Your task to perform on an android device: When is my next meeting? Image 0: 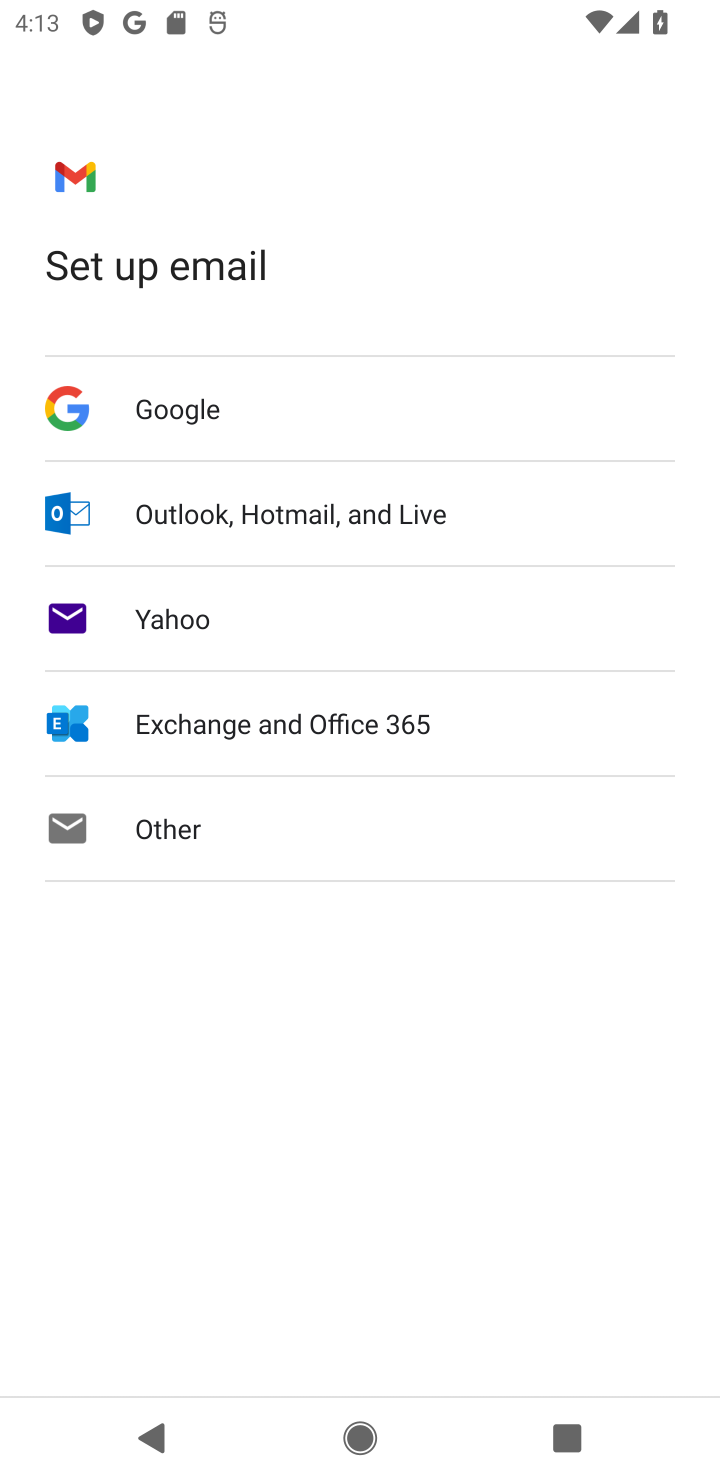
Step 0: press home button
Your task to perform on an android device: When is my next meeting? Image 1: 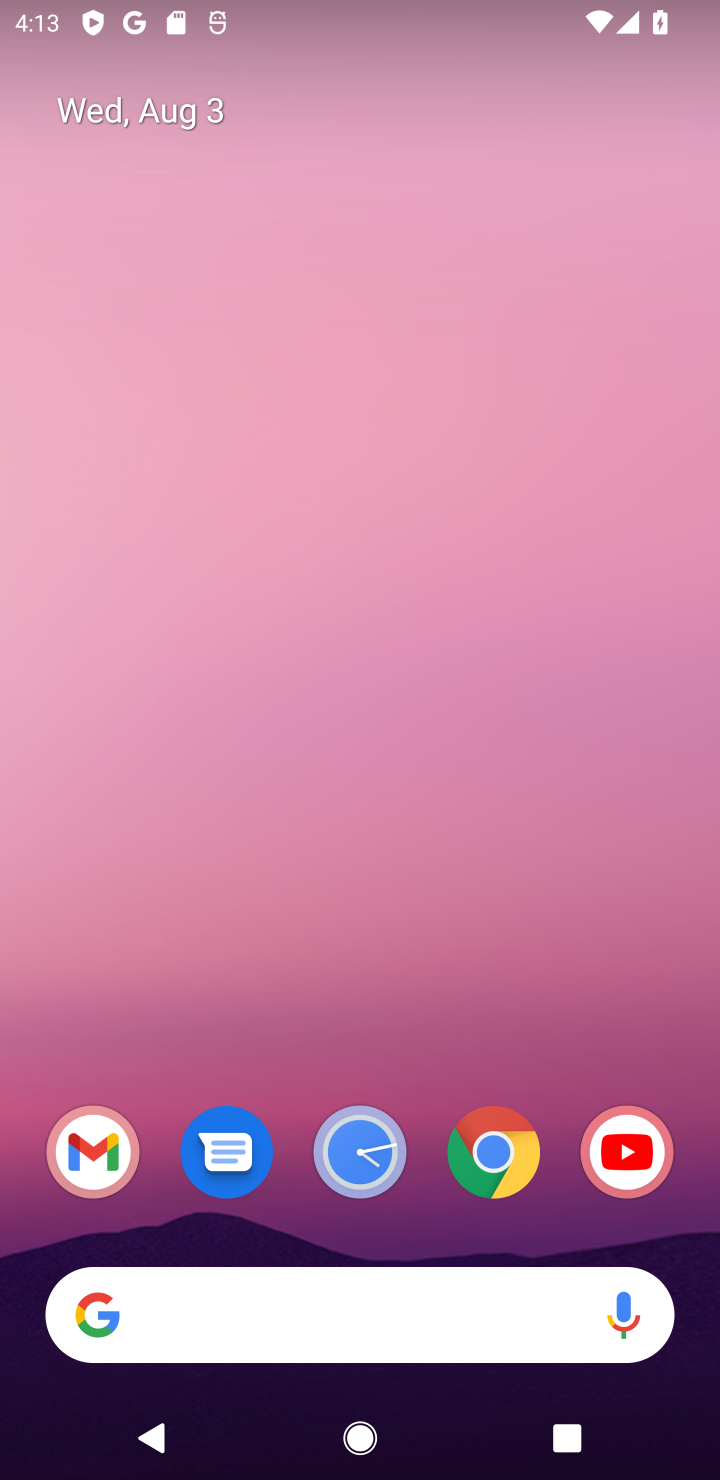
Step 1: drag from (336, 1309) to (291, 541)
Your task to perform on an android device: When is my next meeting? Image 2: 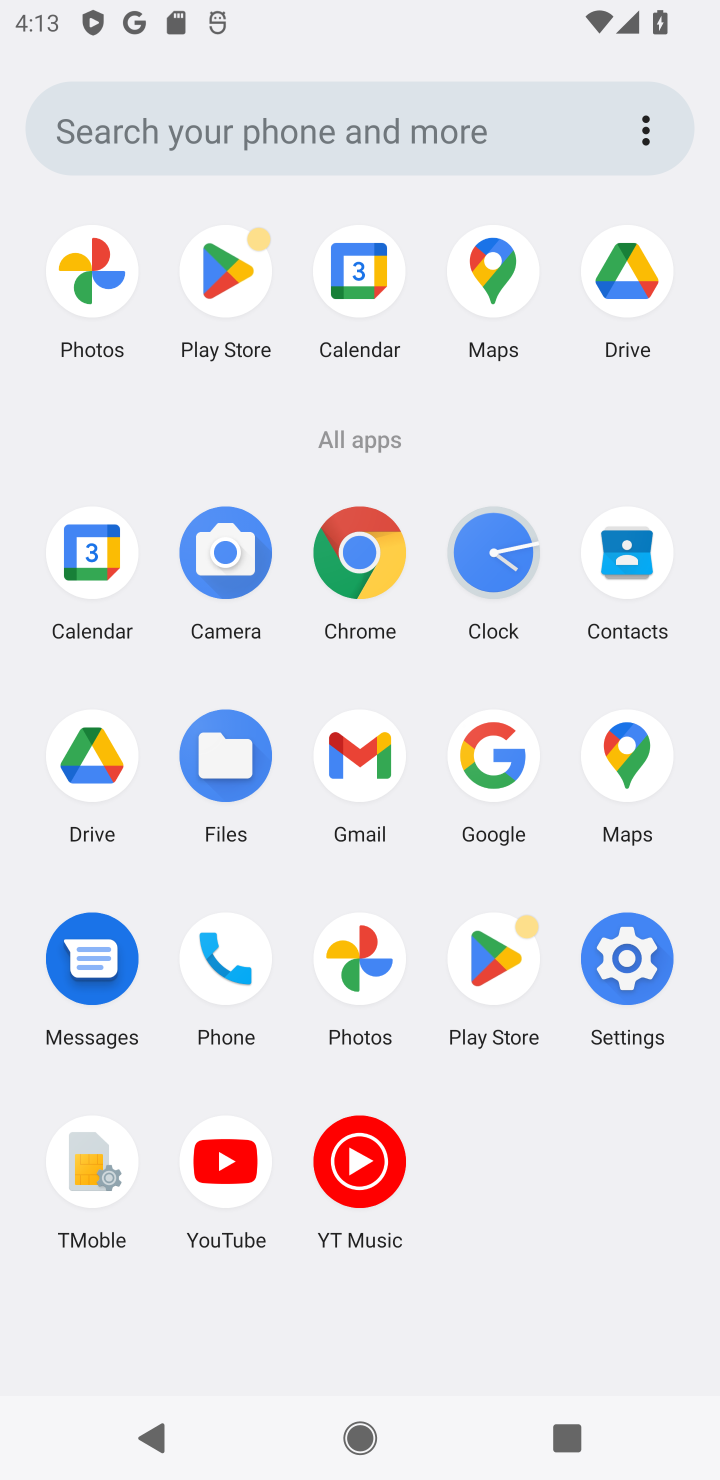
Step 2: click (104, 594)
Your task to perform on an android device: When is my next meeting? Image 3: 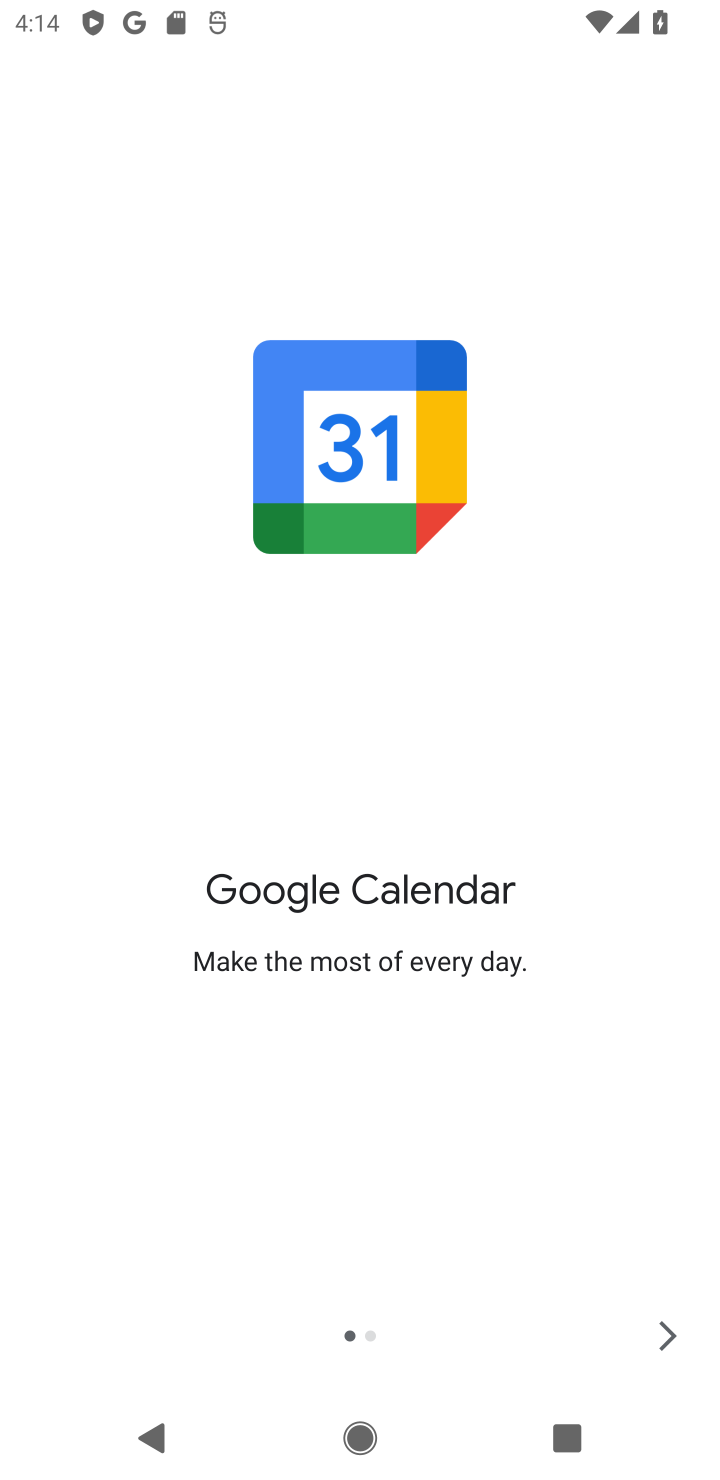
Step 3: click (656, 1337)
Your task to perform on an android device: When is my next meeting? Image 4: 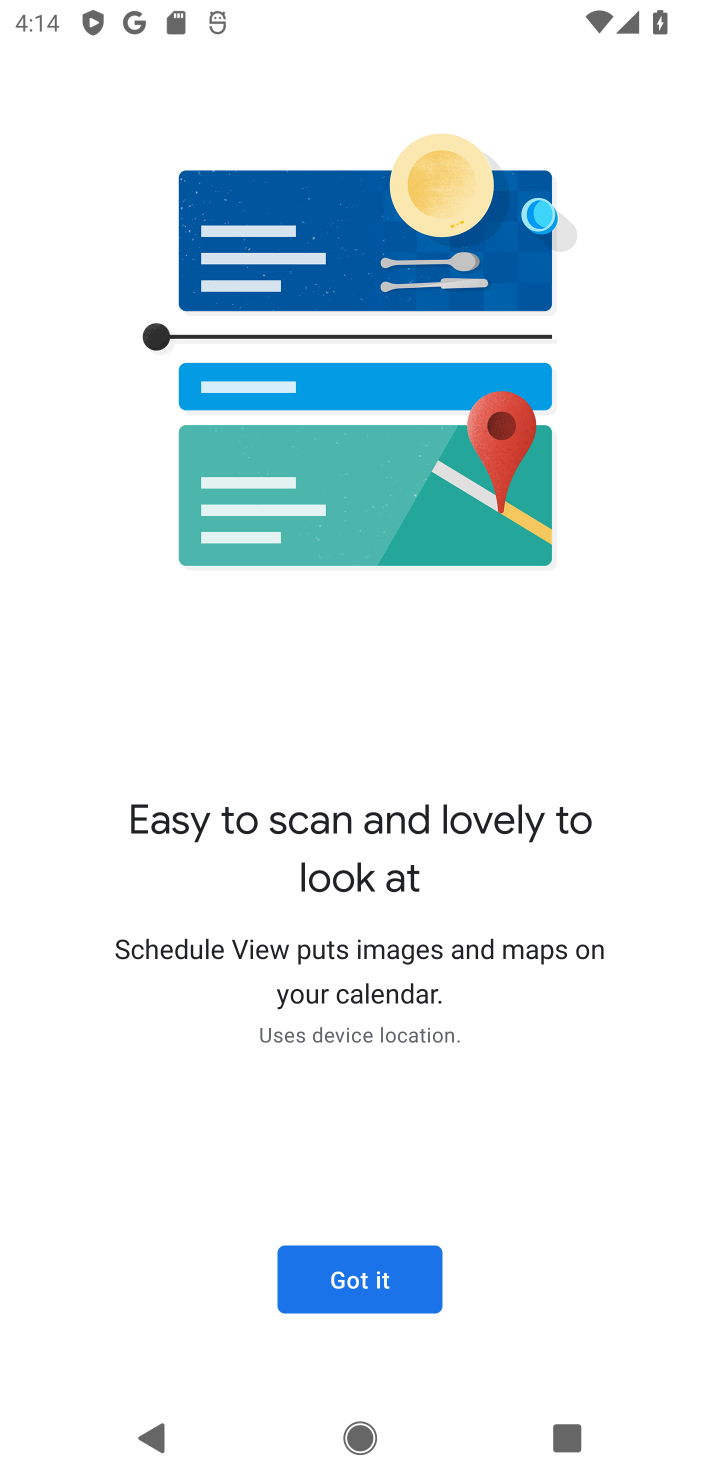
Step 4: click (656, 1337)
Your task to perform on an android device: When is my next meeting? Image 5: 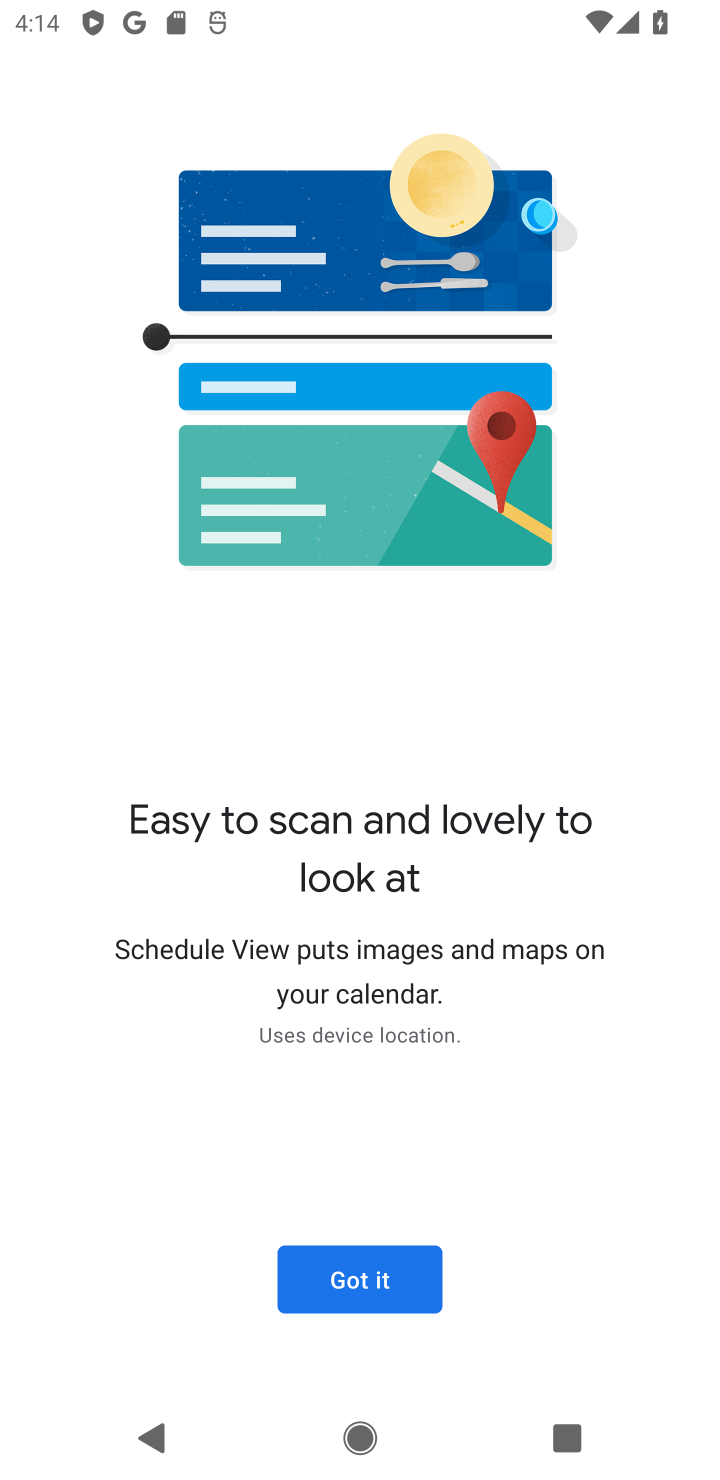
Step 5: click (300, 1315)
Your task to perform on an android device: When is my next meeting? Image 6: 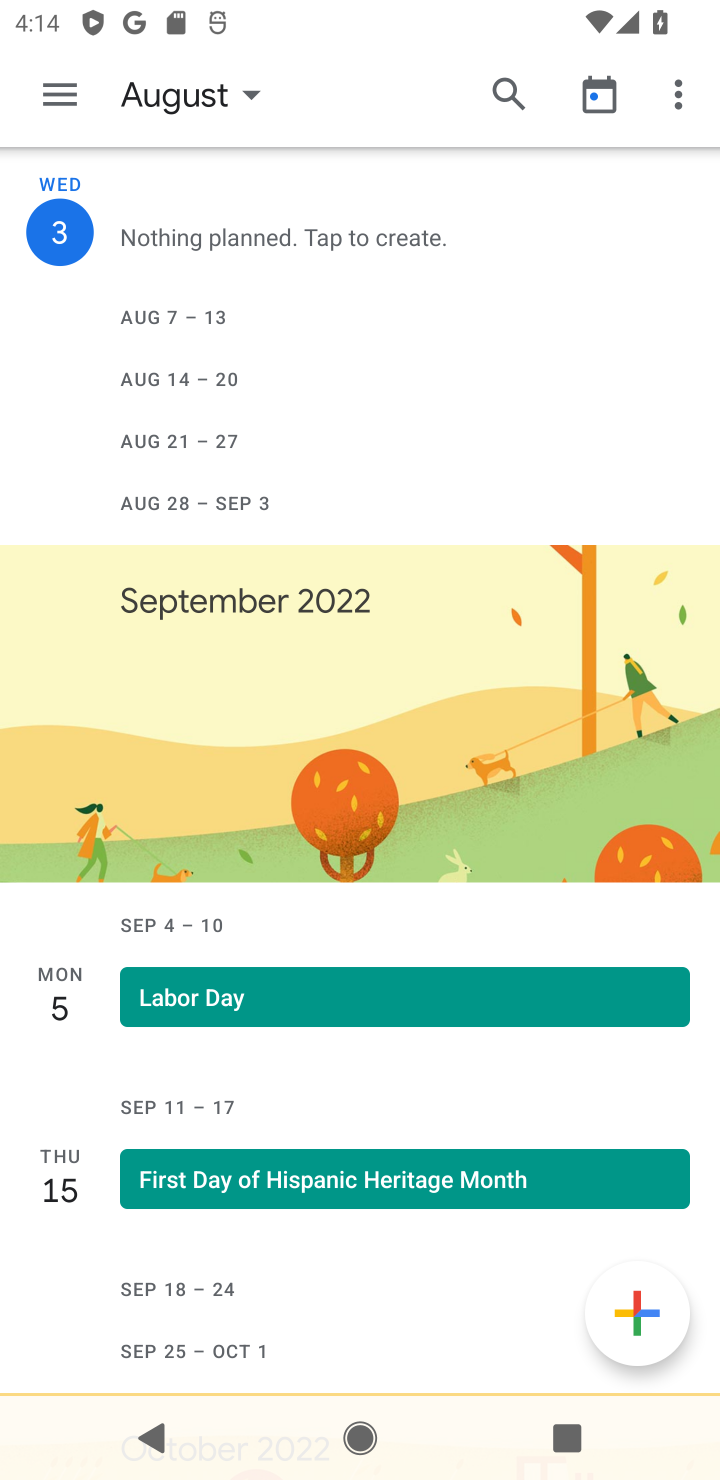
Step 6: click (63, 111)
Your task to perform on an android device: When is my next meeting? Image 7: 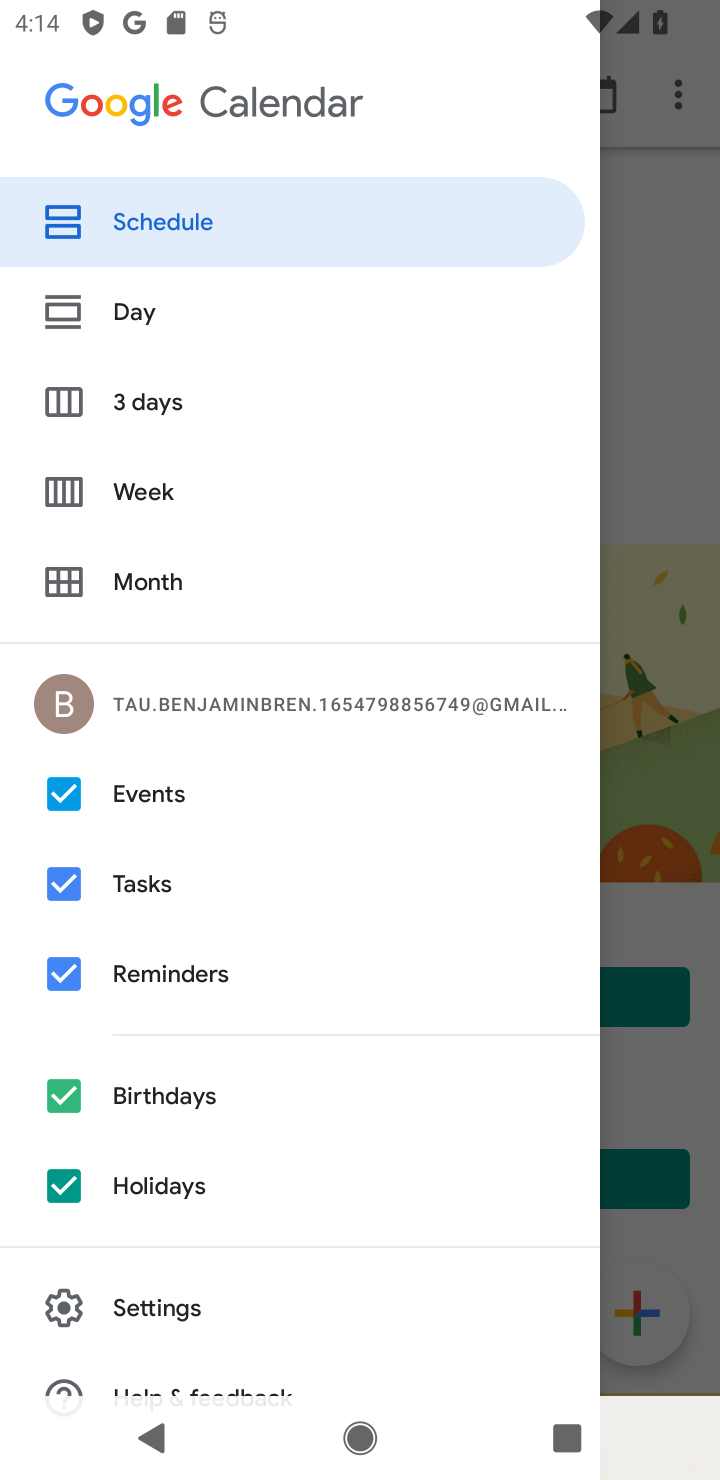
Step 7: click (143, 226)
Your task to perform on an android device: When is my next meeting? Image 8: 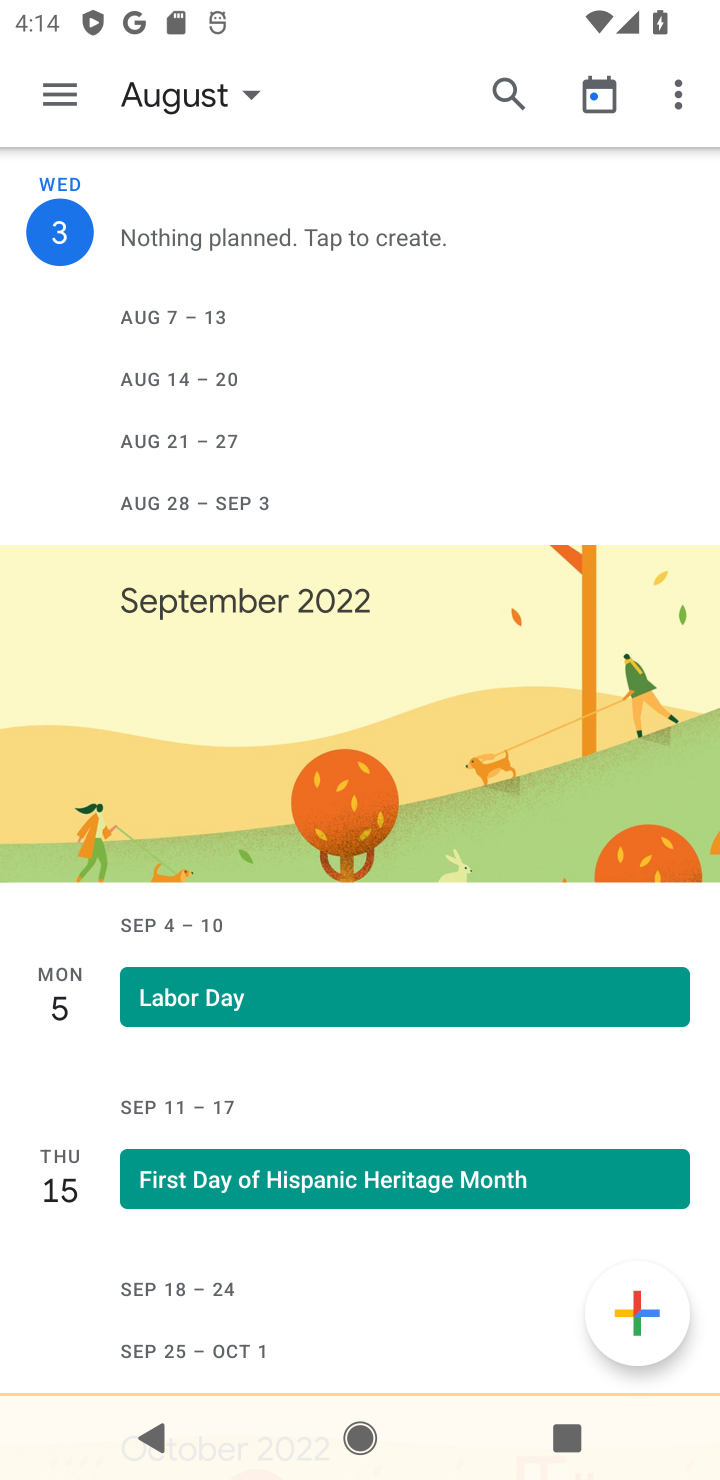
Step 8: task complete